Your task to perform on an android device: What's the weather? Image 0: 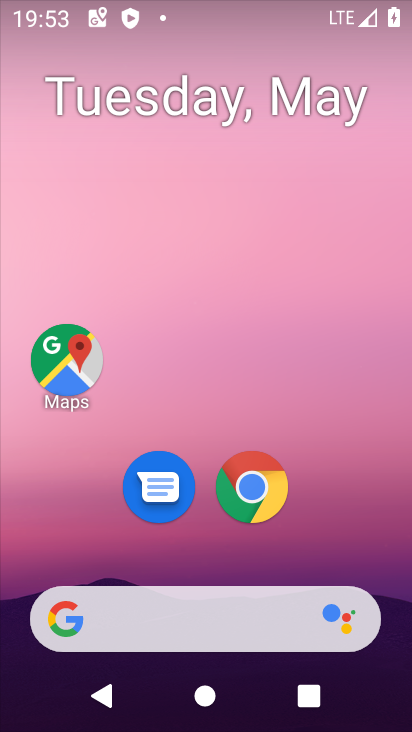
Step 0: click (224, 607)
Your task to perform on an android device: What's the weather? Image 1: 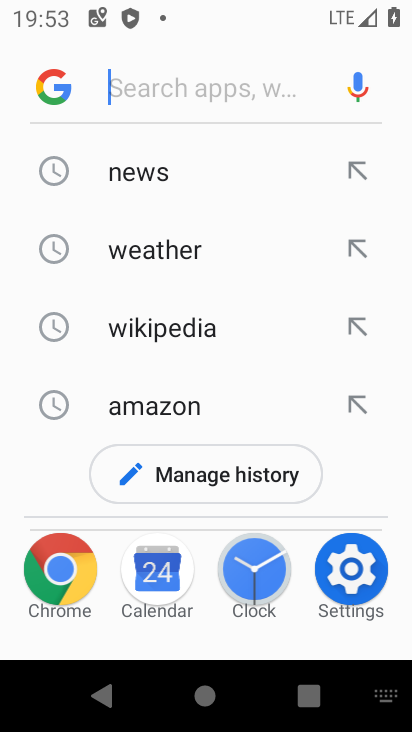
Step 1: click (166, 247)
Your task to perform on an android device: What's the weather? Image 2: 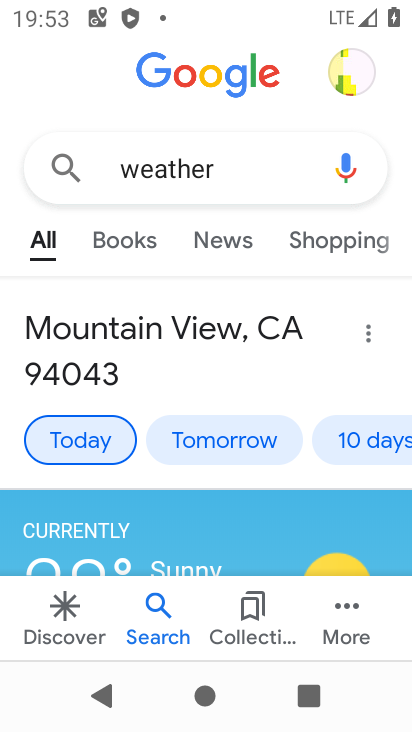
Step 2: task complete